Your task to perform on an android device: turn off improve location accuracy Image 0: 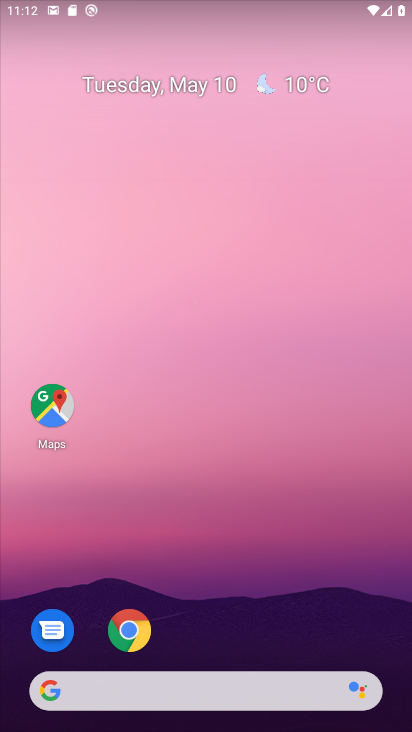
Step 0: drag from (237, 593) to (253, 59)
Your task to perform on an android device: turn off improve location accuracy Image 1: 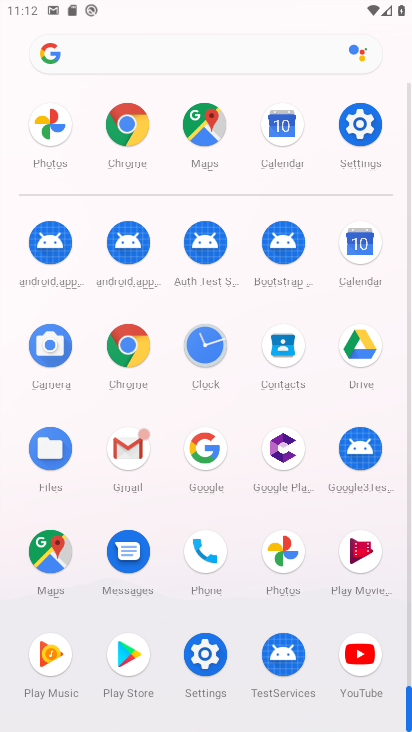
Step 1: click (373, 123)
Your task to perform on an android device: turn off improve location accuracy Image 2: 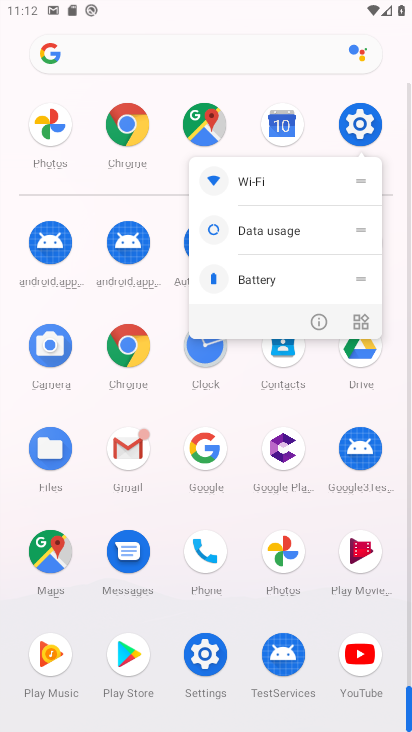
Step 2: click (355, 123)
Your task to perform on an android device: turn off improve location accuracy Image 3: 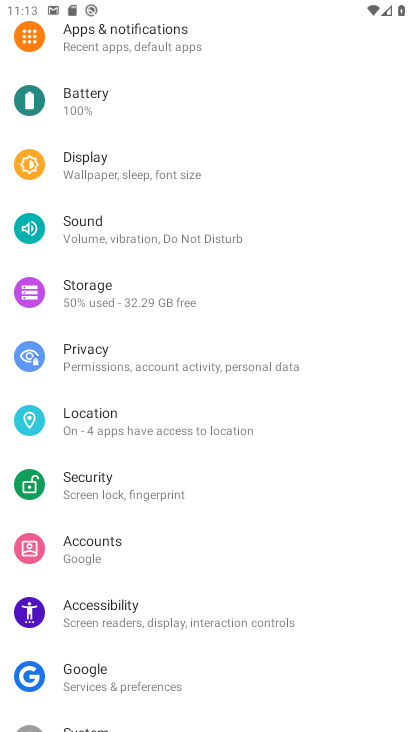
Step 3: drag from (314, 638) to (287, 247)
Your task to perform on an android device: turn off improve location accuracy Image 4: 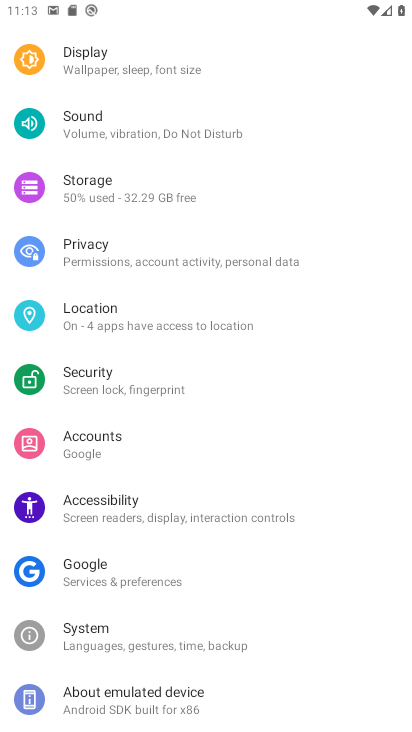
Step 4: click (190, 699)
Your task to perform on an android device: turn off improve location accuracy Image 5: 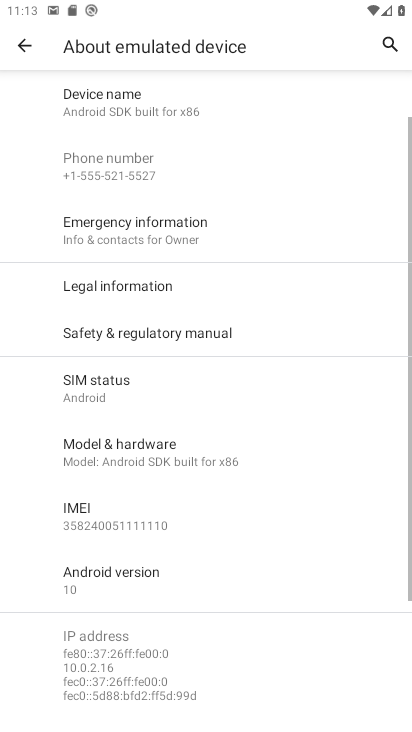
Step 5: click (26, 42)
Your task to perform on an android device: turn off improve location accuracy Image 6: 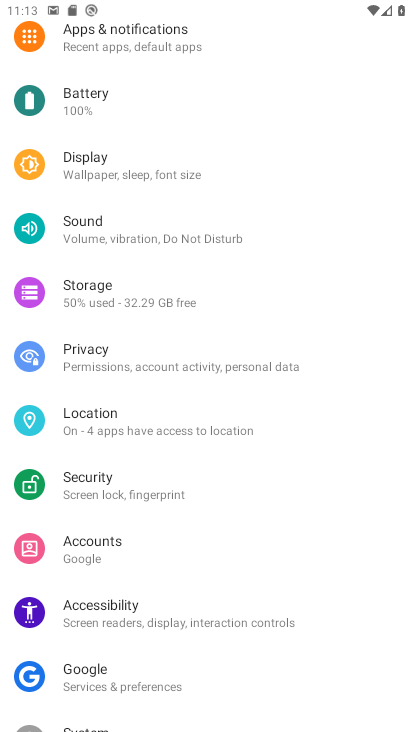
Step 6: click (192, 424)
Your task to perform on an android device: turn off improve location accuracy Image 7: 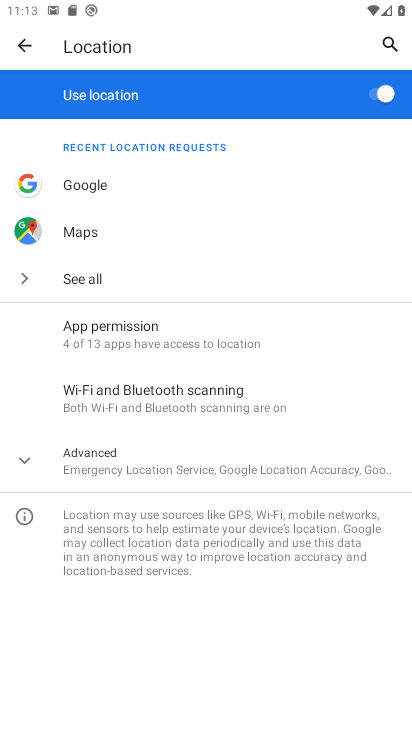
Step 7: click (215, 466)
Your task to perform on an android device: turn off improve location accuracy Image 8: 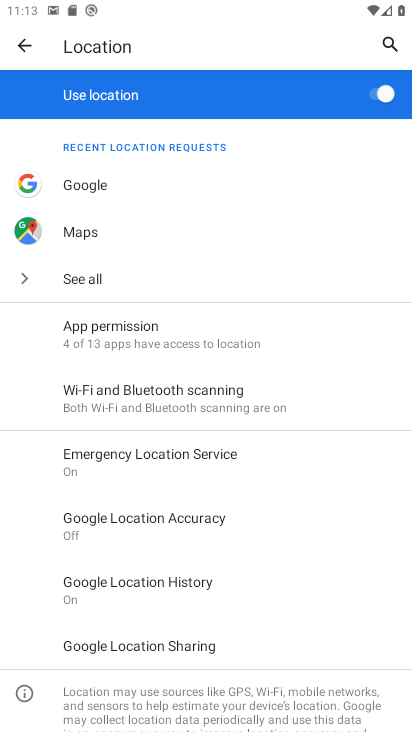
Step 8: click (171, 524)
Your task to perform on an android device: turn off improve location accuracy Image 9: 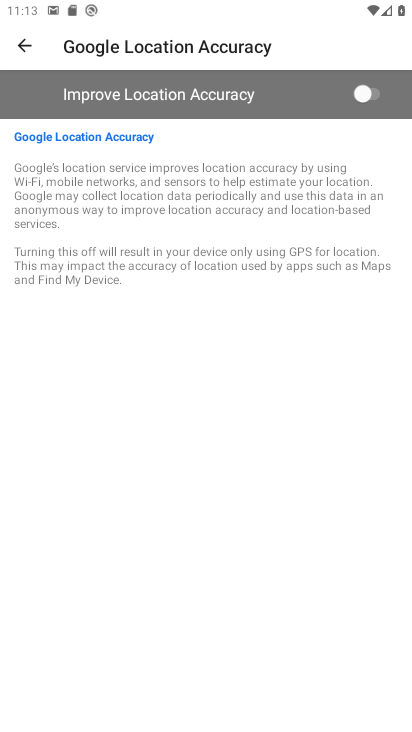
Step 9: task complete